Your task to perform on an android device: toggle data saver in the chrome app Image 0: 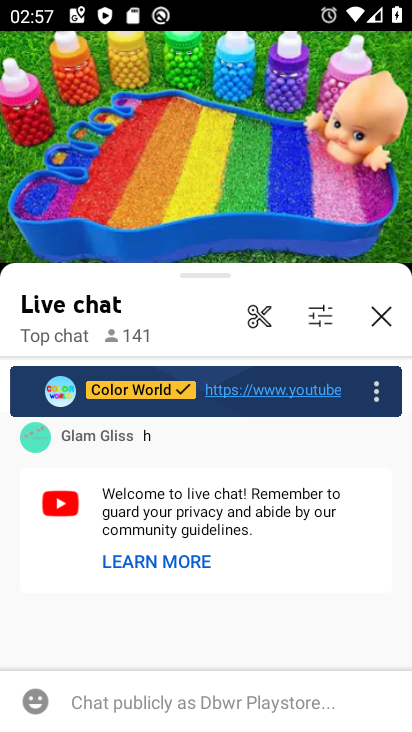
Step 0: press home button
Your task to perform on an android device: toggle data saver in the chrome app Image 1: 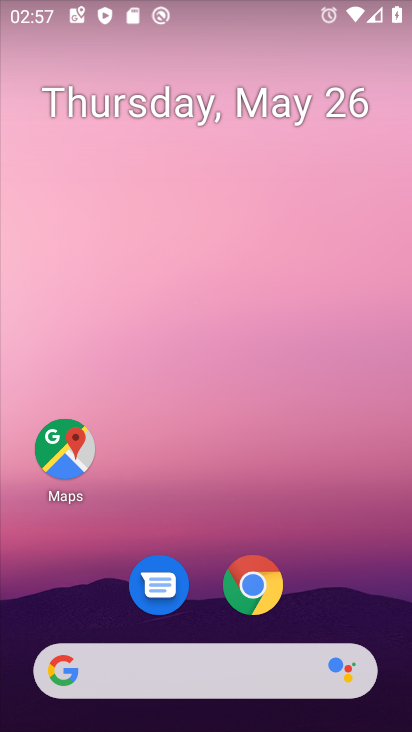
Step 1: click (261, 583)
Your task to perform on an android device: toggle data saver in the chrome app Image 2: 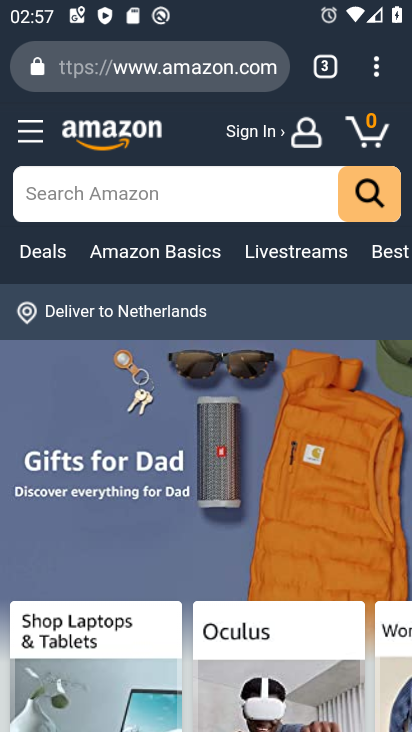
Step 2: click (376, 57)
Your task to perform on an android device: toggle data saver in the chrome app Image 3: 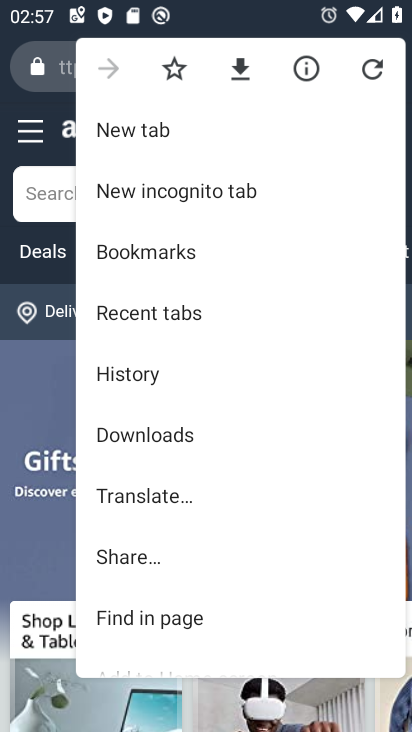
Step 3: drag from (242, 558) to (237, 261)
Your task to perform on an android device: toggle data saver in the chrome app Image 4: 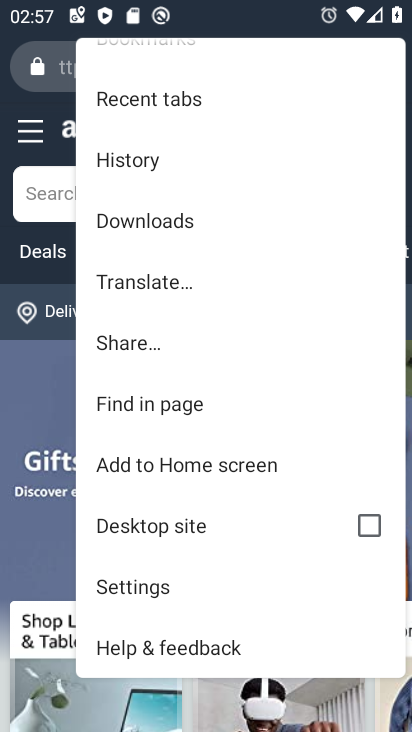
Step 4: click (184, 584)
Your task to perform on an android device: toggle data saver in the chrome app Image 5: 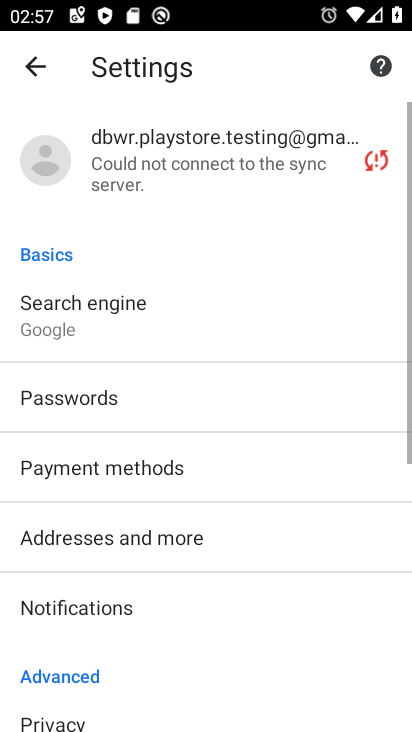
Step 5: drag from (192, 577) to (218, 156)
Your task to perform on an android device: toggle data saver in the chrome app Image 6: 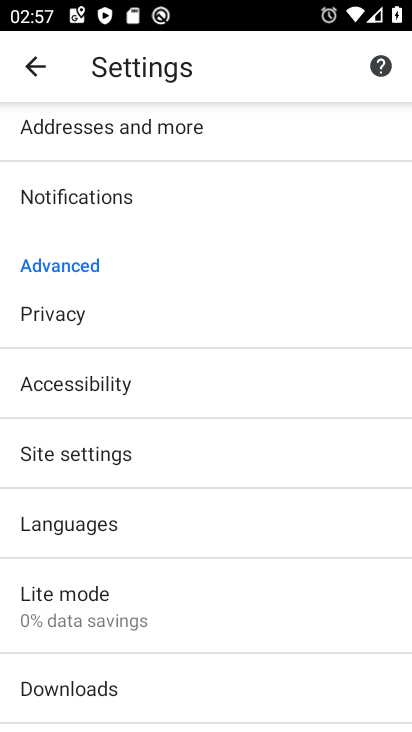
Step 6: click (153, 588)
Your task to perform on an android device: toggle data saver in the chrome app Image 7: 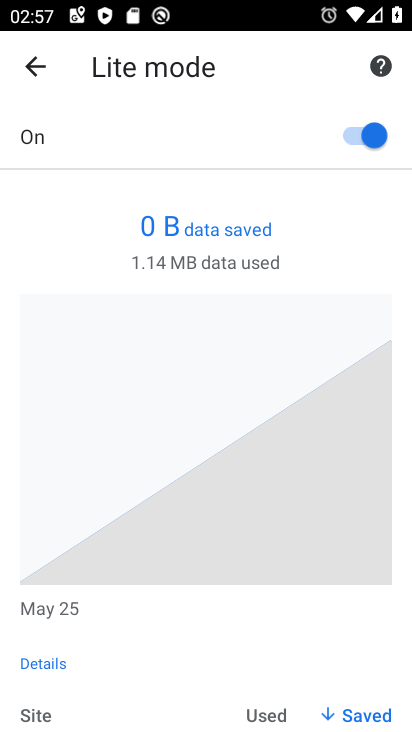
Step 7: click (357, 133)
Your task to perform on an android device: toggle data saver in the chrome app Image 8: 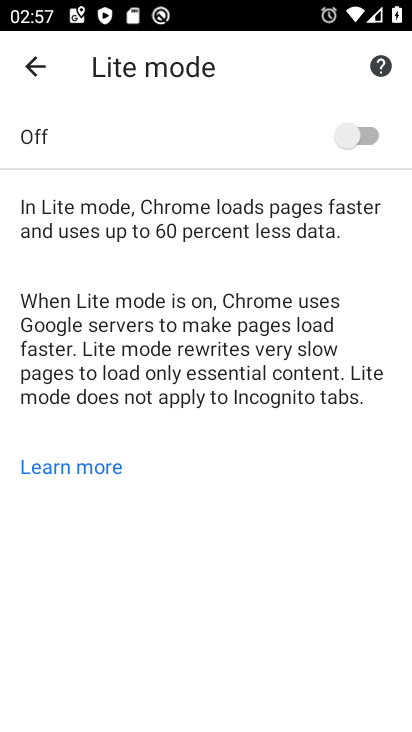
Step 8: task complete